Your task to perform on an android device: Open the calendar app, open the side menu, and click the "Day" option Image 0: 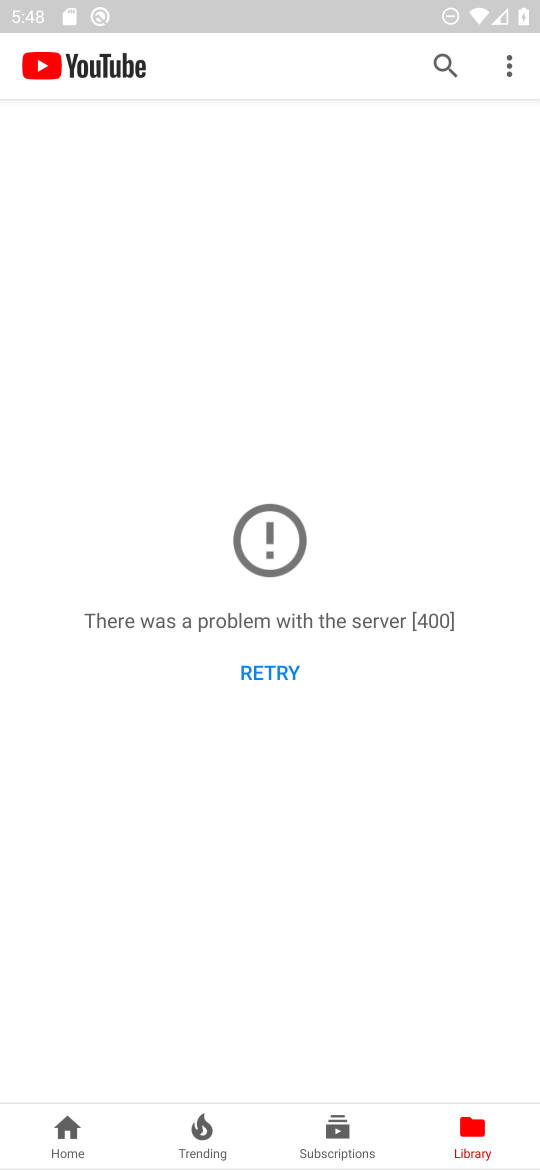
Step 0: press home button
Your task to perform on an android device: Open the calendar app, open the side menu, and click the "Day" option Image 1: 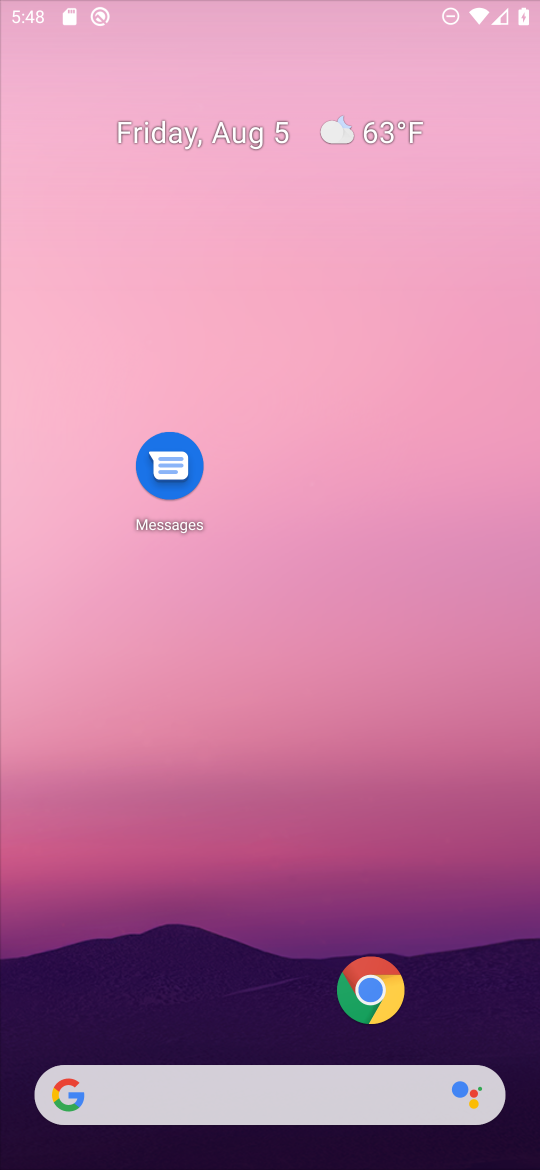
Step 1: drag from (205, 1044) to (155, 434)
Your task to perform on an android device: Open the calendar app, open the side menu, and click the "Day" option Image 2: 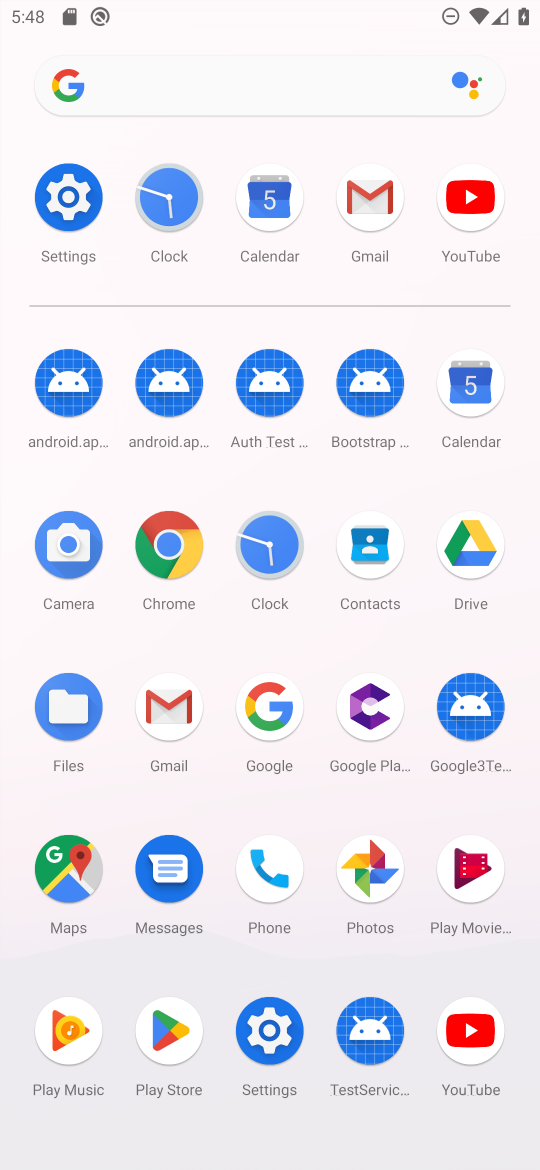
Step 2: click (254, 209)
Your task to perform on an android device: Open the calendar app, open the side menu, and click the "Day" option Image 3: 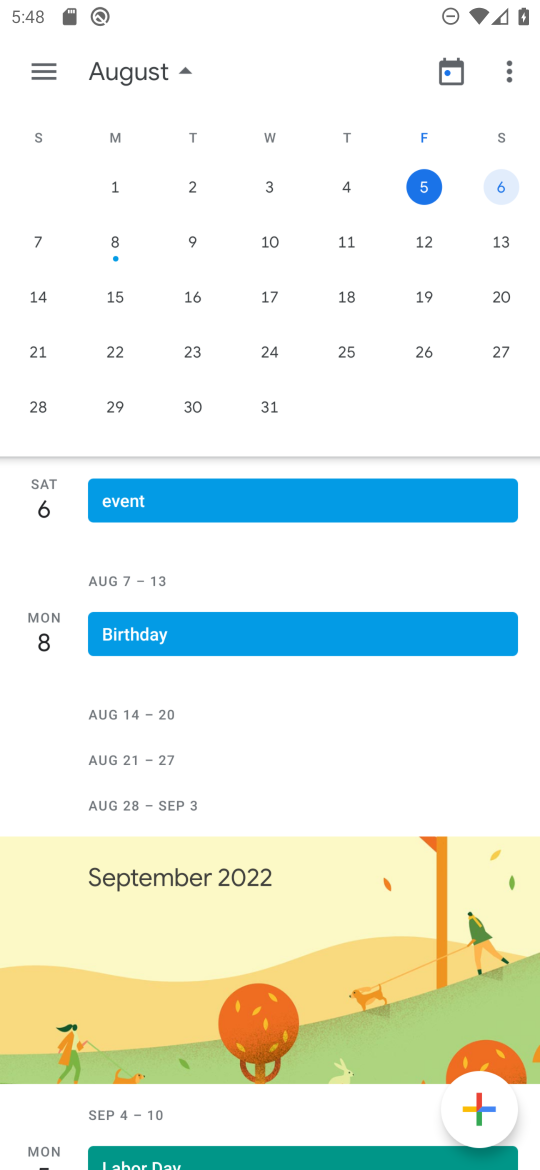
Step 3: click (38, 69)
Your task to perform on an android device: Open the calendar app, open the side menu, and click the "Day" option Image 4: 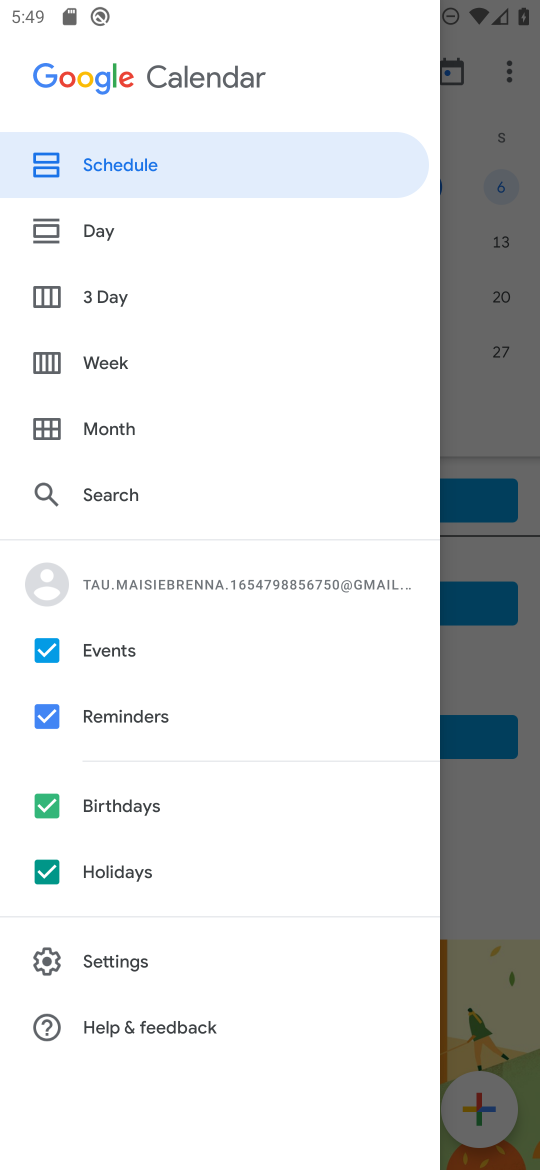
Step 4: click (94, 235)
Your task to perform on an android device: Open the calendar app, open the side menu, and click the "Day" option Image 5: 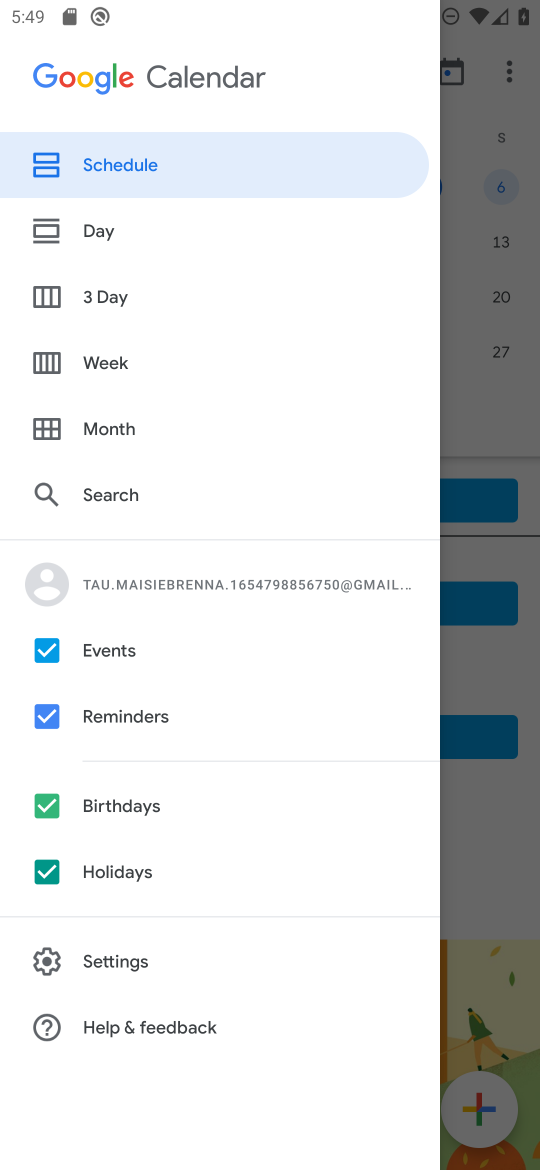
Step 5: click (89, 239)
Your task to perform on an android device: Open the calendar app, open the side menu, and click the "Day" option Image 6: 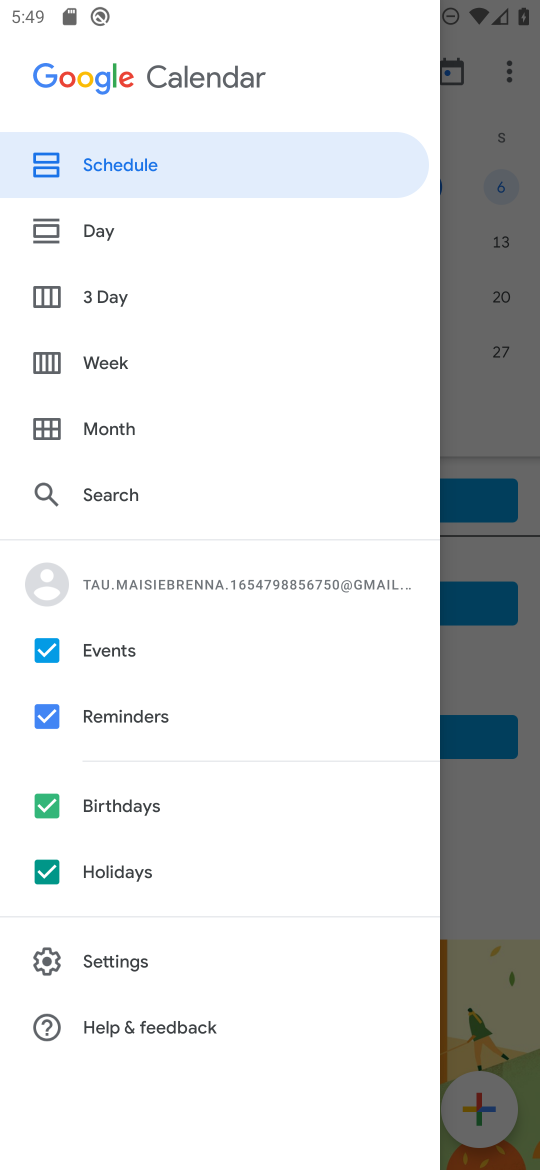
Step 6: click (89, 239)
Your task to perform on an android device: Open the calendar app, open the side menu, and click the "Day" option Image 7: 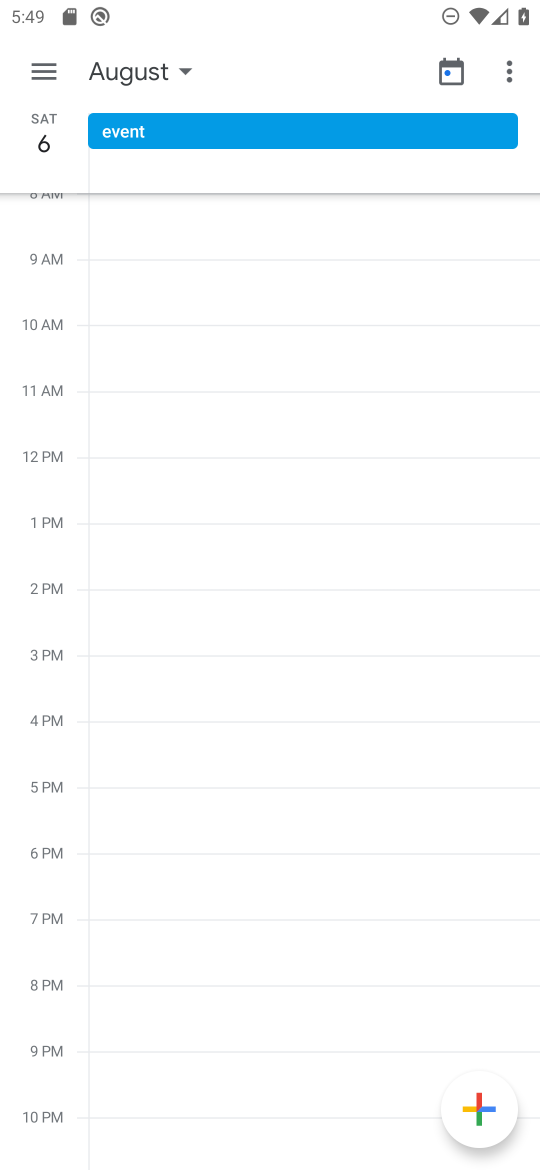
Step 7: task complete